Your task to perform on an android device: Clear the cart on amazon. Search for "corsair k70" on amazon, select the first entry, add it to the cart, then select checkout. Image 0: 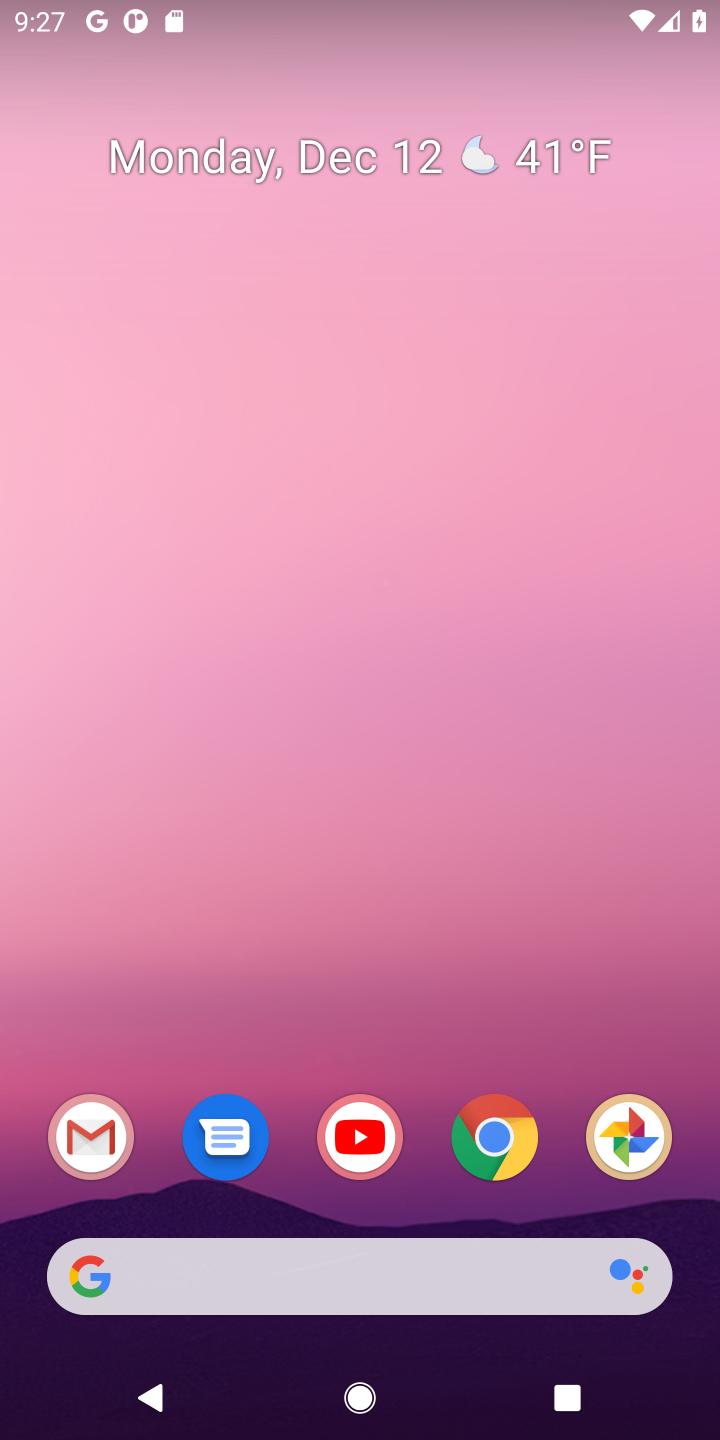
Step 0: click (495, 1143)
Your task to perform on an android device: Clear the cart on amazon. Search for "corsair k70" on amazon, select the first entry, add it to the cart, then select checkout. Image 1: 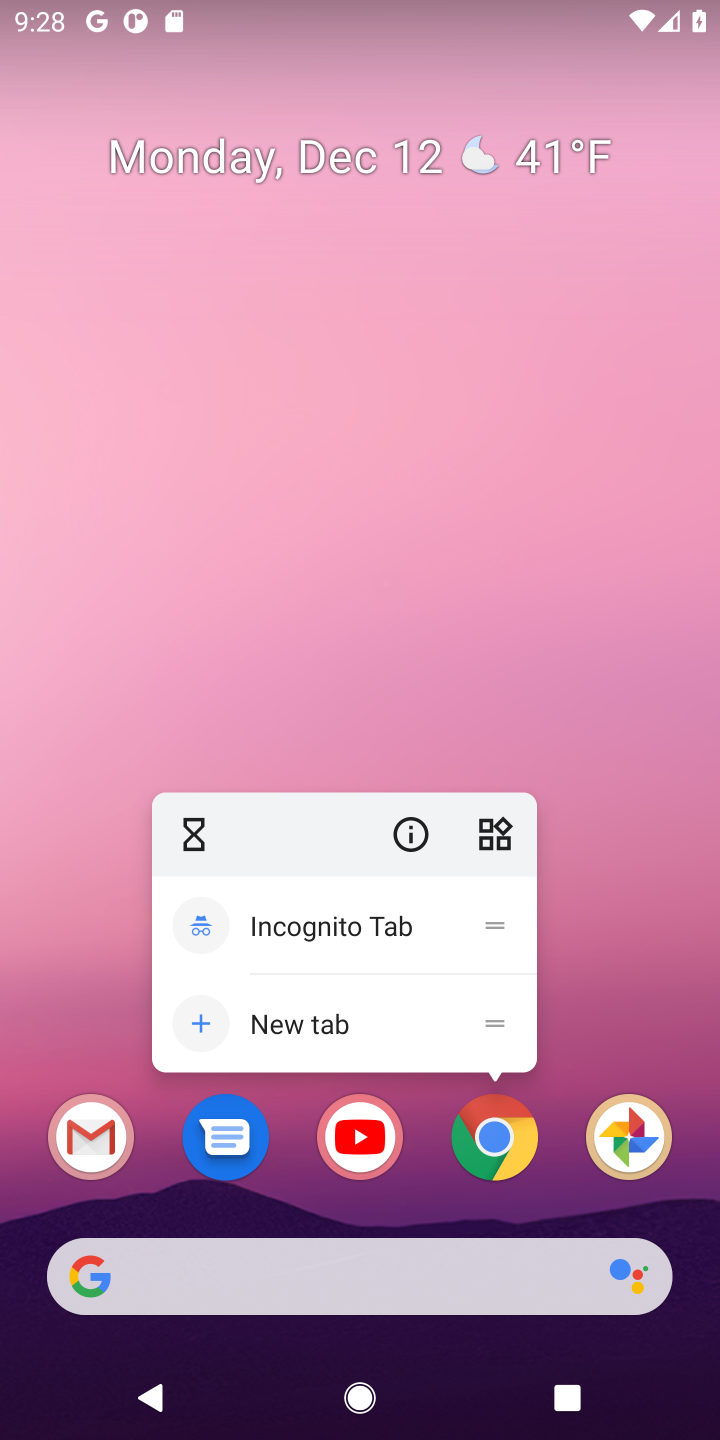
Step 1: click (516, 1114)
Your task to perform on an android device: Clear the cart on amazon. Search for "corsair k70" on amazon, select the first entry, add it to the cart, then select checkout. Image 2: 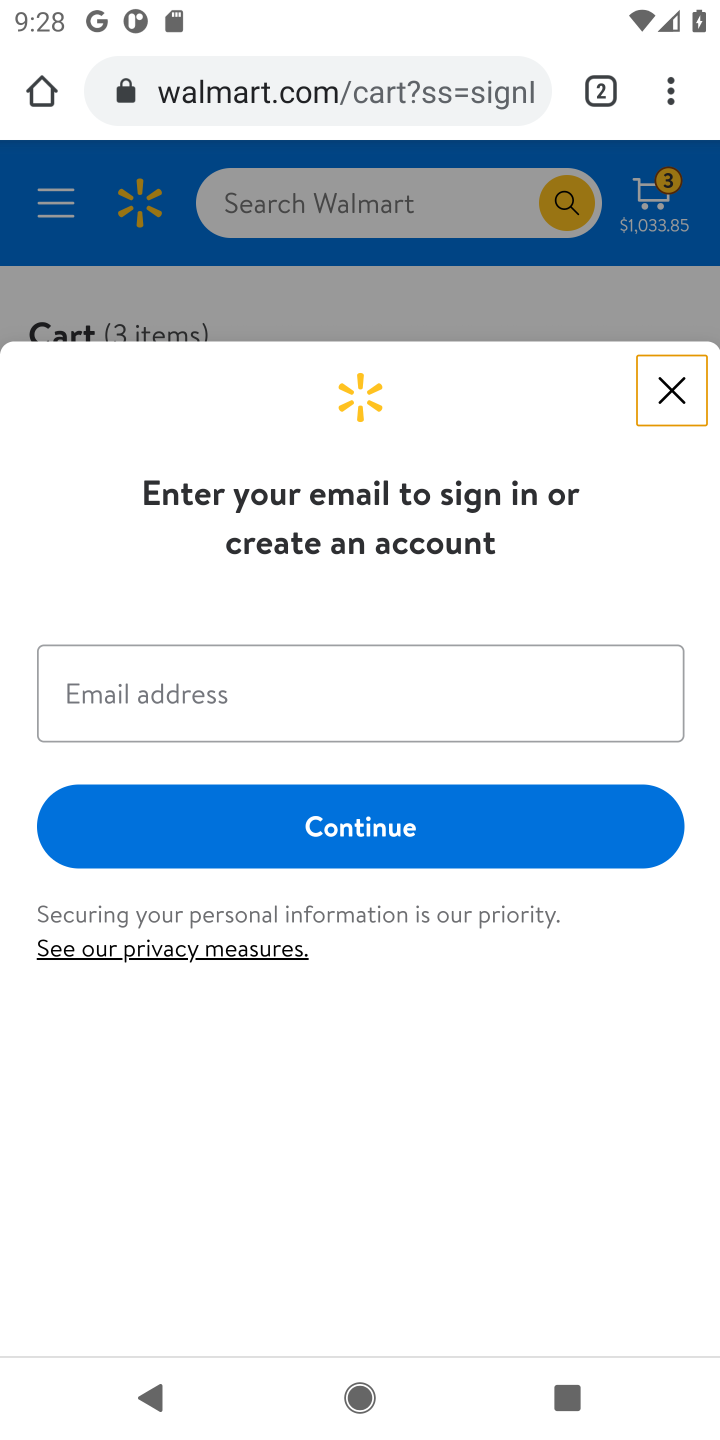
Step 2: click (668, 387)
Your task to perform on an android device: Clear the cart on amazon. Search for "corsair k70" on amazon, select the first entry, add it to the cart, then select checkout. Image 3: 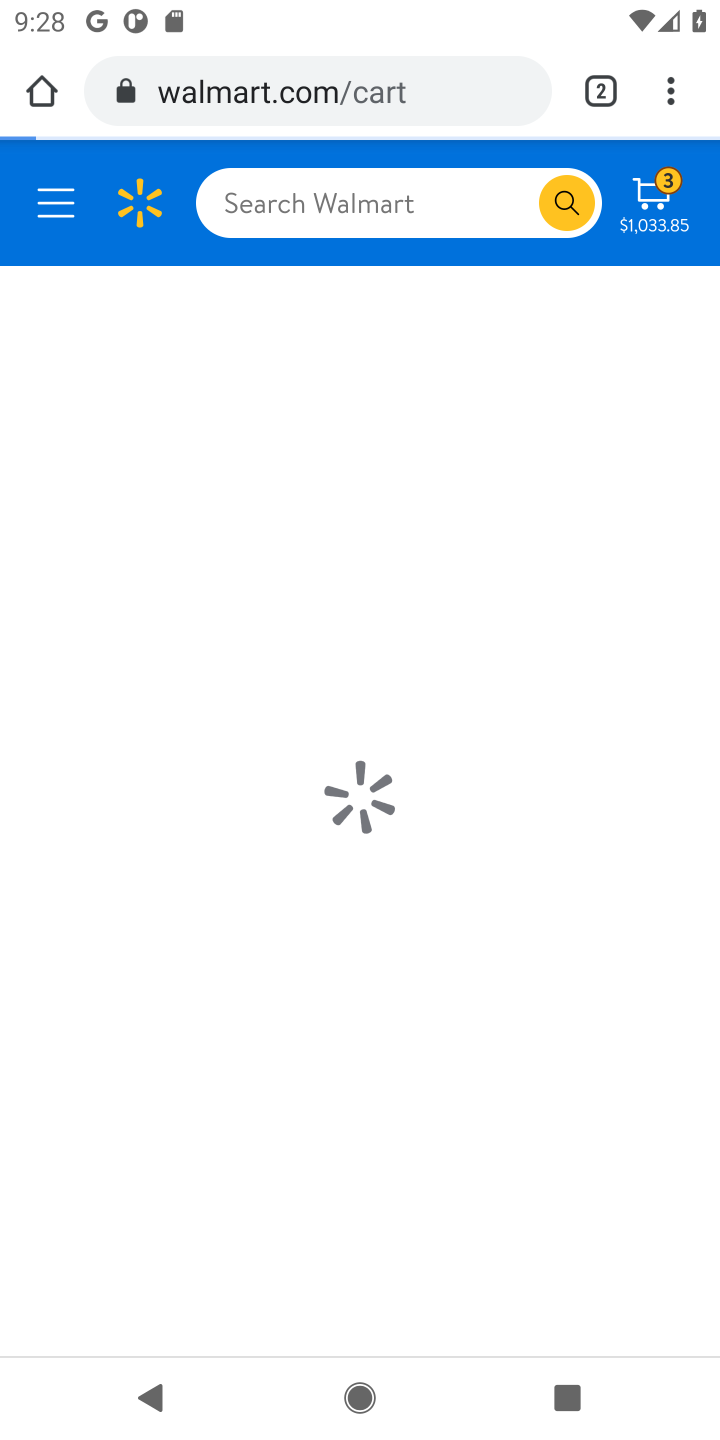
Step 3: click (352, 90)
Your task to perform on an android device: Clear the cart on amazon. Search for "corsair k70" on amazon, select the first entry, add it to the cart, then select checkout. Image 4: 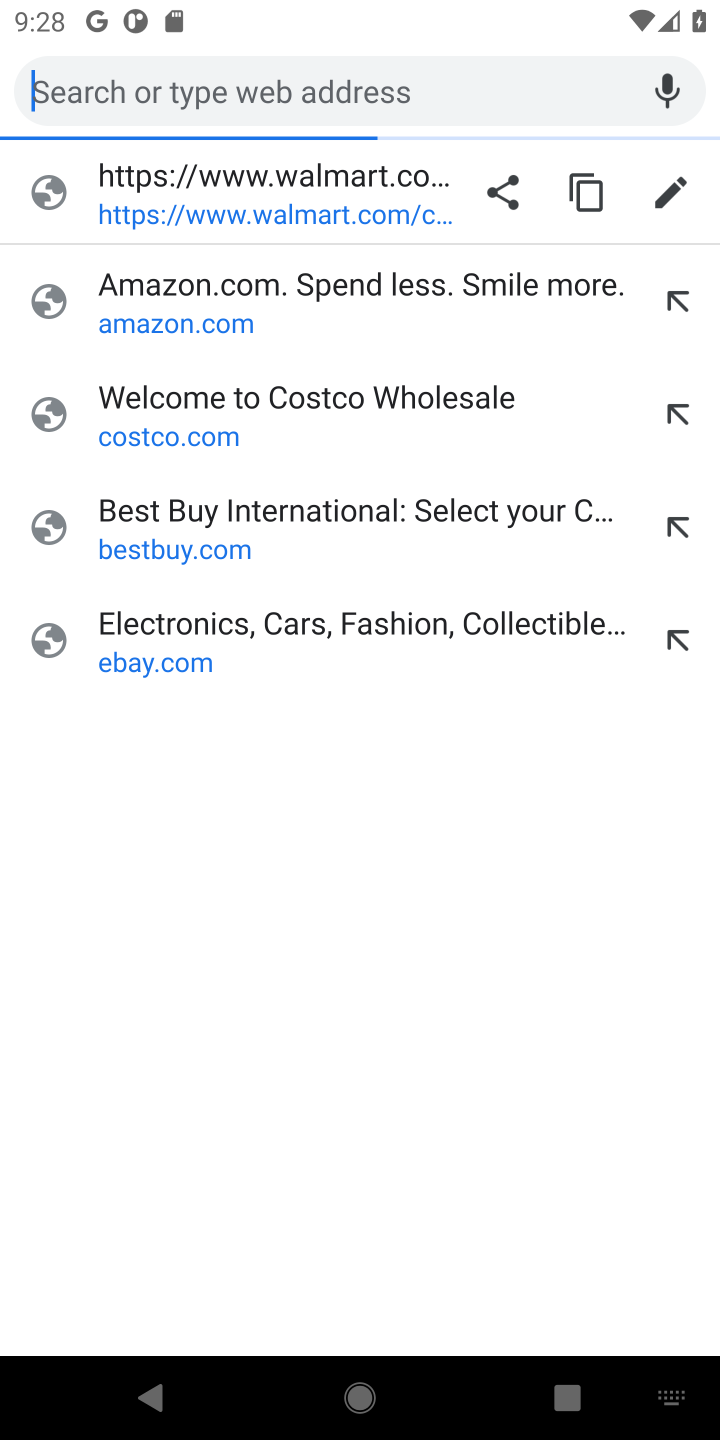
Step 4: click (183, 318)
Your task to perform on an android device: Clear the cart on amazon. Search for "corsair k70" on amazon, select the first entry, add it to the cart, then select checkout. Image 5: 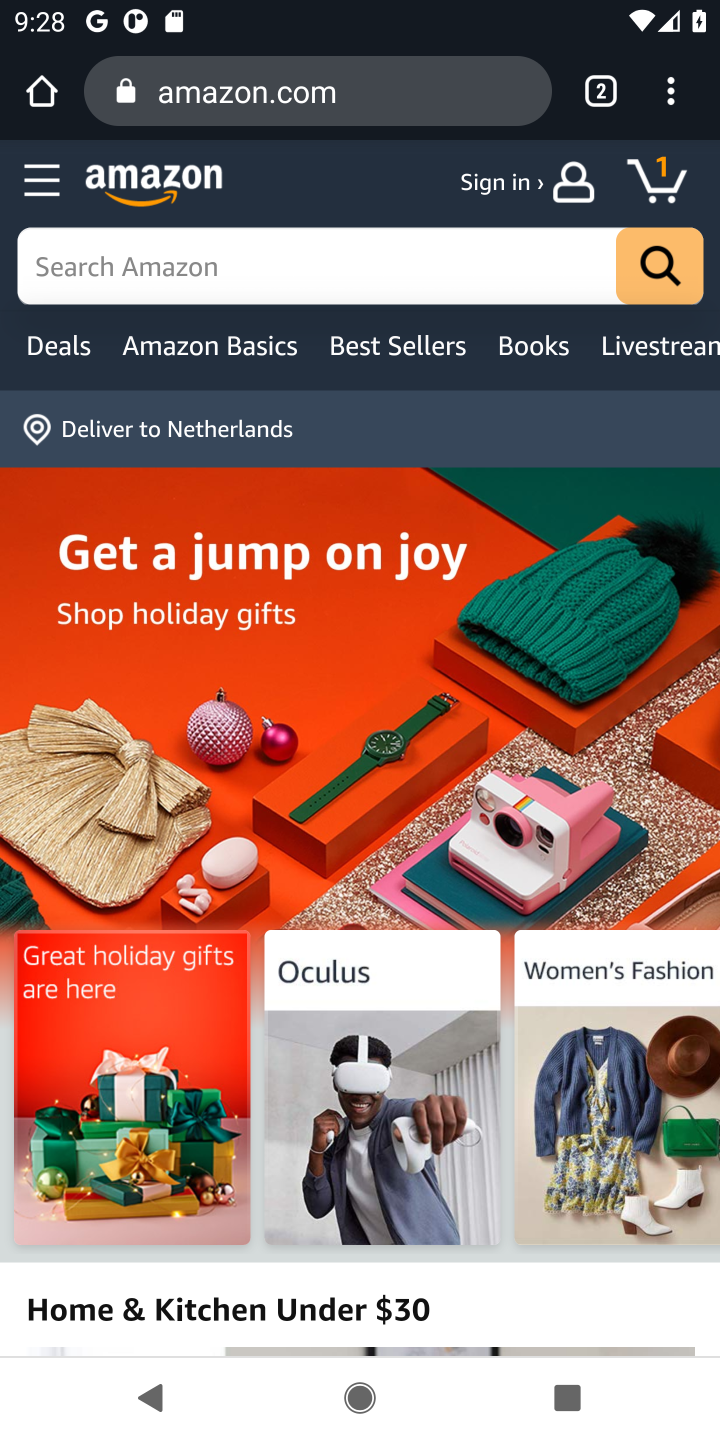
Step 5: click (474, 267)
Your task to perform on an android device: Clear the cart on amazon. Search for "corsair k70" on amazon, select the first entry, add it to the cart, then select checkout. Image 6: 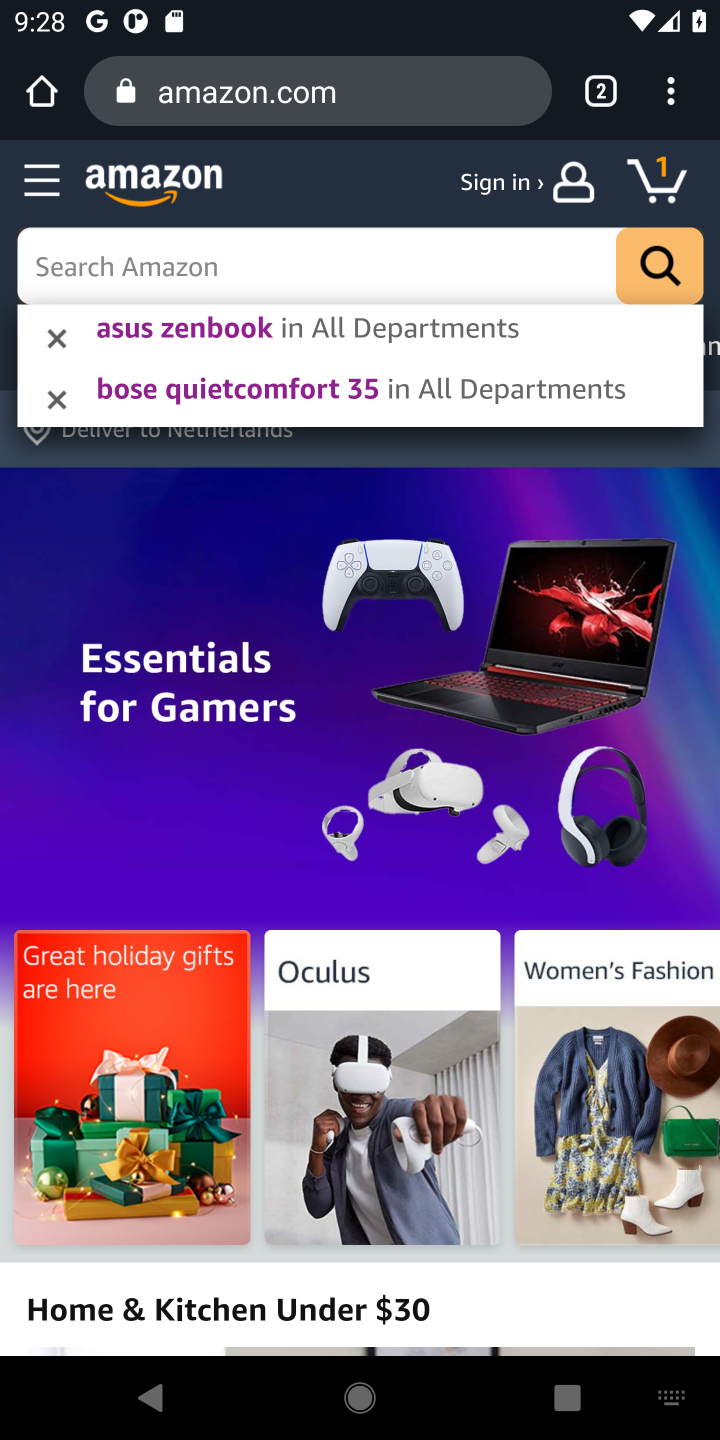
Step 6: click (662, 172)
Your task to perform on an android device: Clear the cart on amazon. Search for "corsair k70" on amazon, select the first entry, add it to the cart, then select checkout. Image 7: 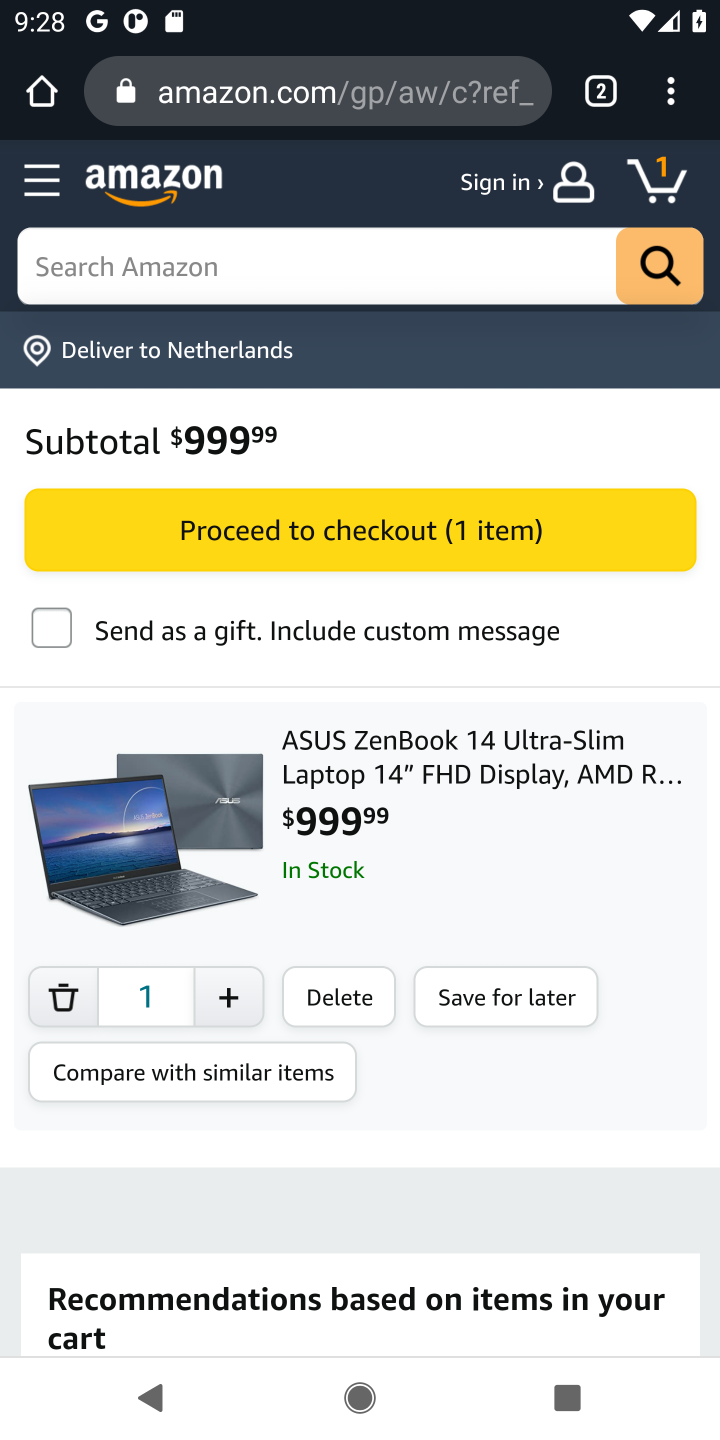
Step 7: click (56, 995)
Your task to perform on an android device: Clear the cart on amazon. Search for "corsair k70" on amazon, select the first entry, add it to the cart, then select checkout. Image 8: 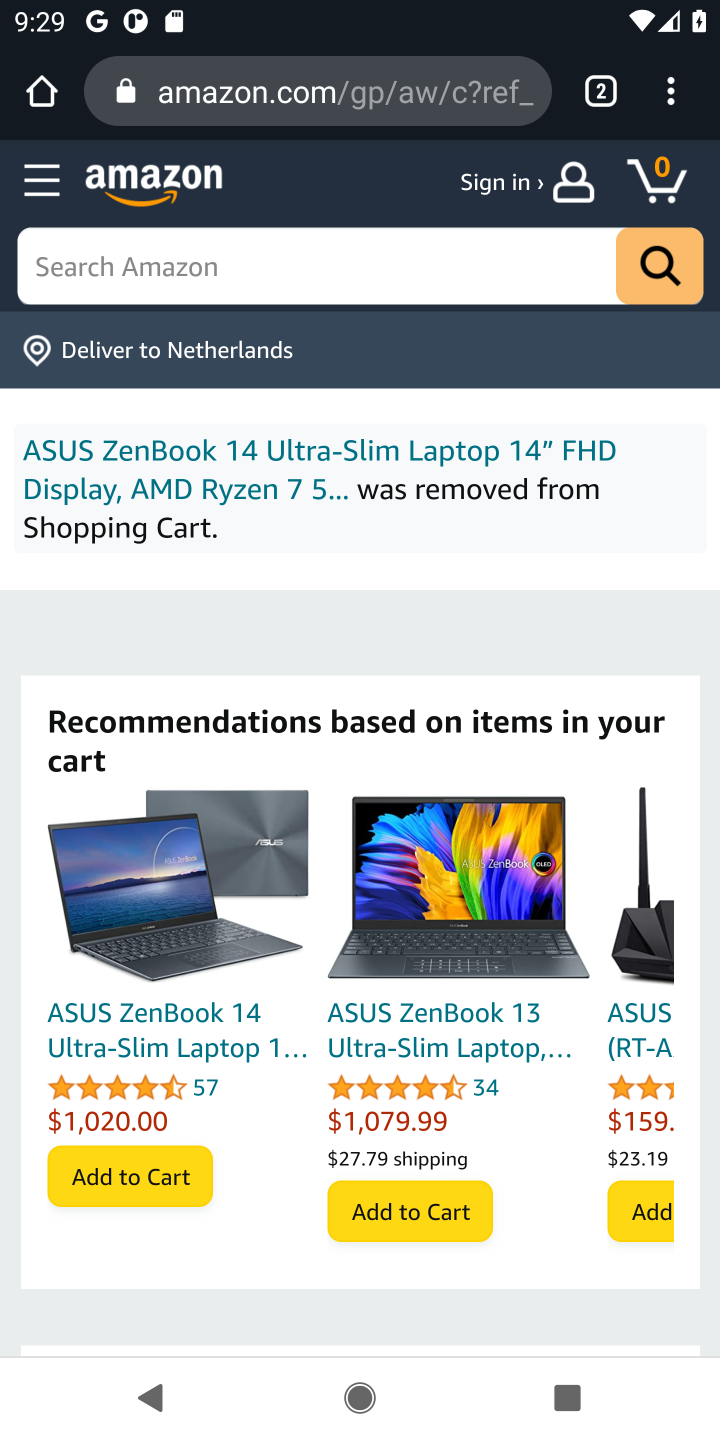
Step 8: click (409, 276)
Your task to perform on an android device: Clear the cart on amazon. Search for "corsair k70" on amazon, select the first entry, add it to the cart, then select checkout. Image 9: 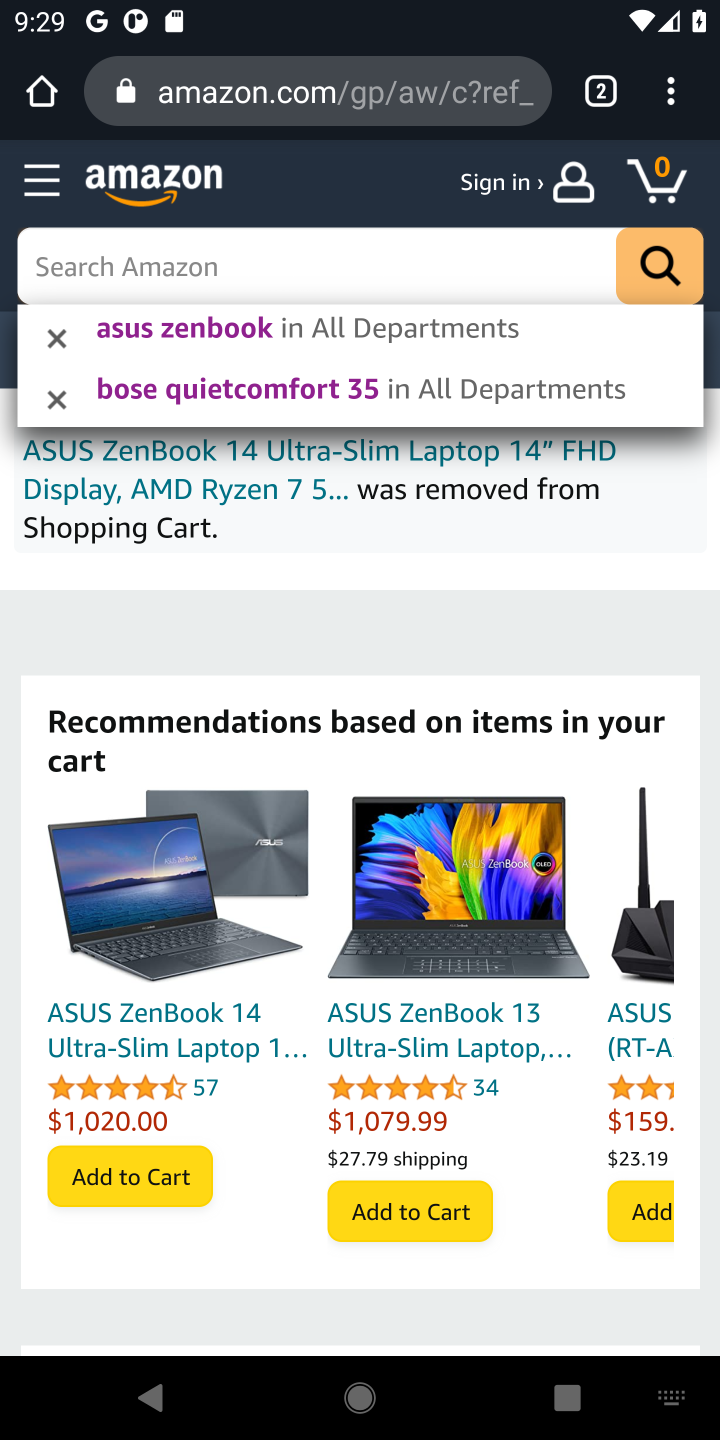
Step 9: type "corsair k70"
Your task to perform on an android device: Clear the cart on amazon. Search for "corsair k70" on amazon, select the first entry, add it to the cart, then select checkout. Image 10: 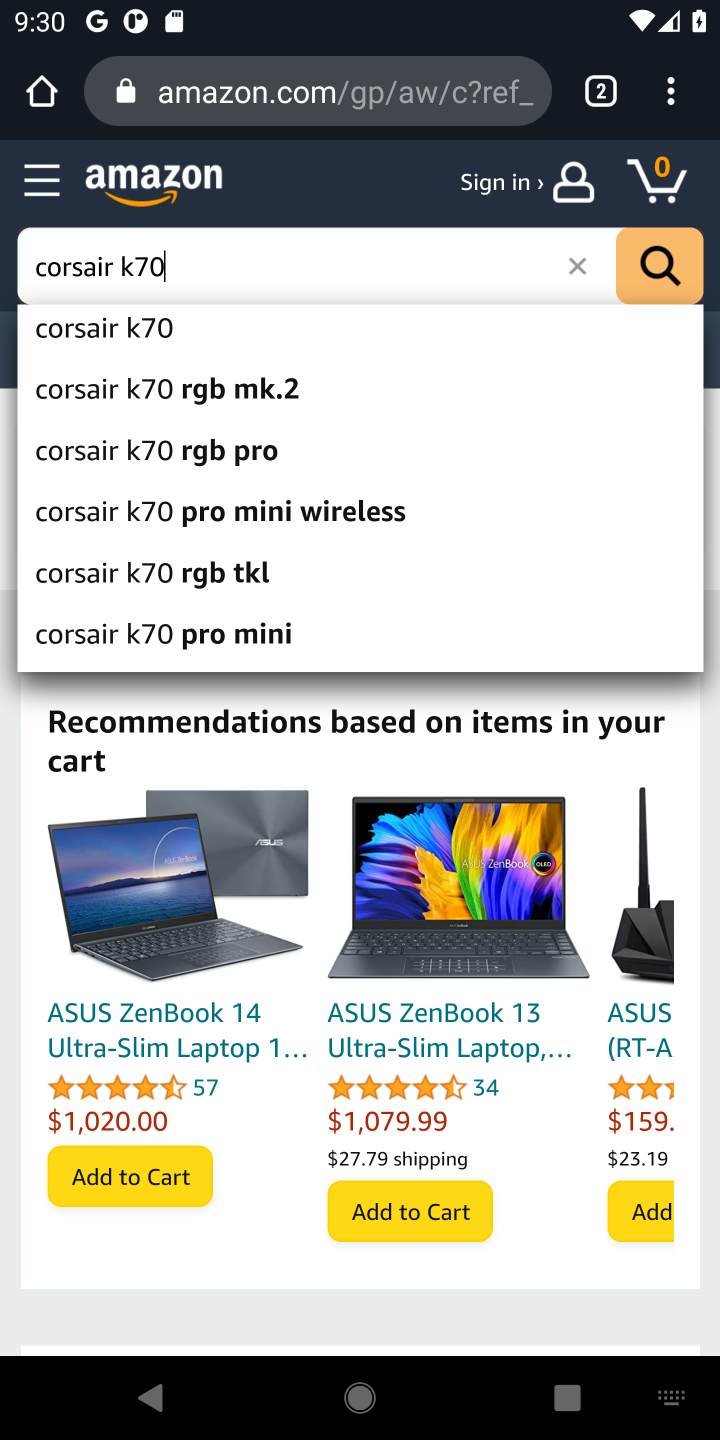
Step 10: click (112, 340)
Your task to perform on an android device: Clear the cart on amazon. Search for "corsair k70" on amazon, select the first entry, add it to the cart, then select checkout. Image 11: 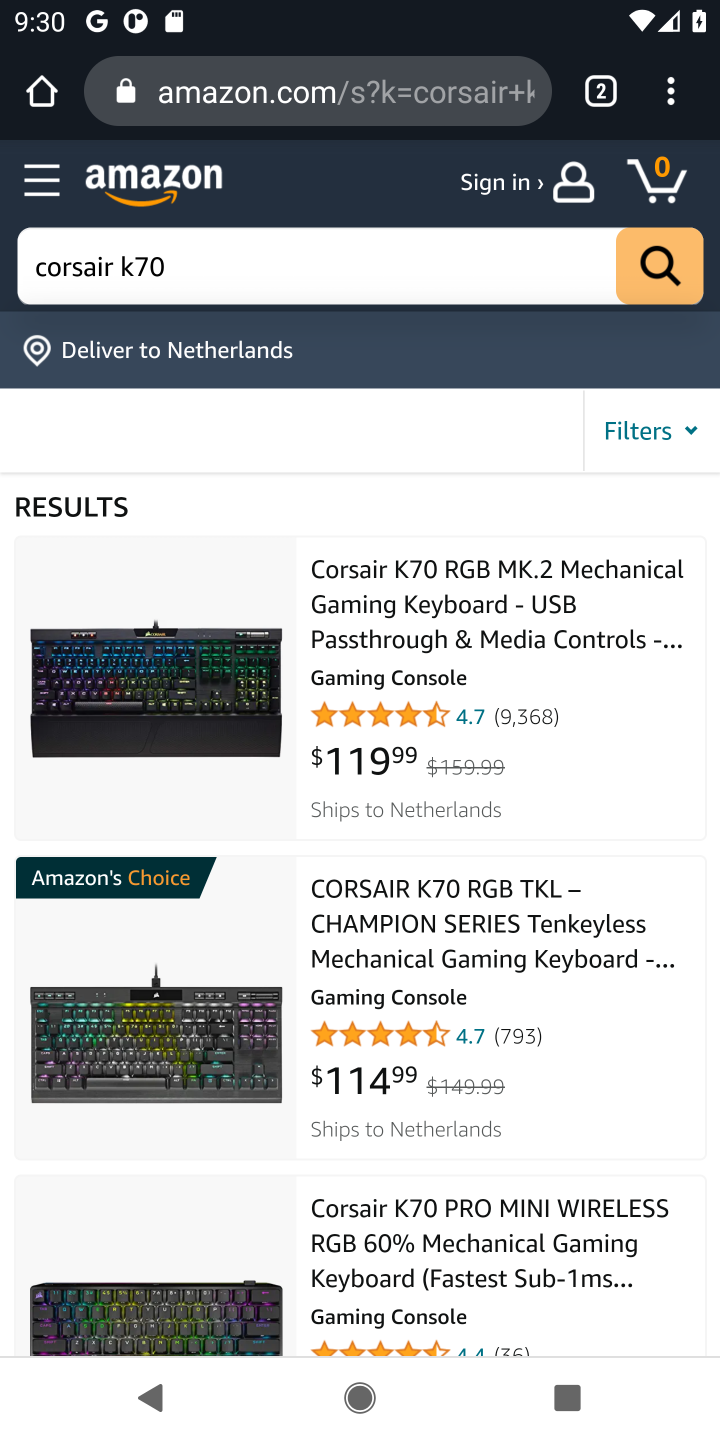
Step 11: click (547, 632)
Your task to perform on an android device: Clear the cart on amazon. Search for "corsair k70" on amazon, select the first entry, add it to the cart, then select checkout. Image 12: 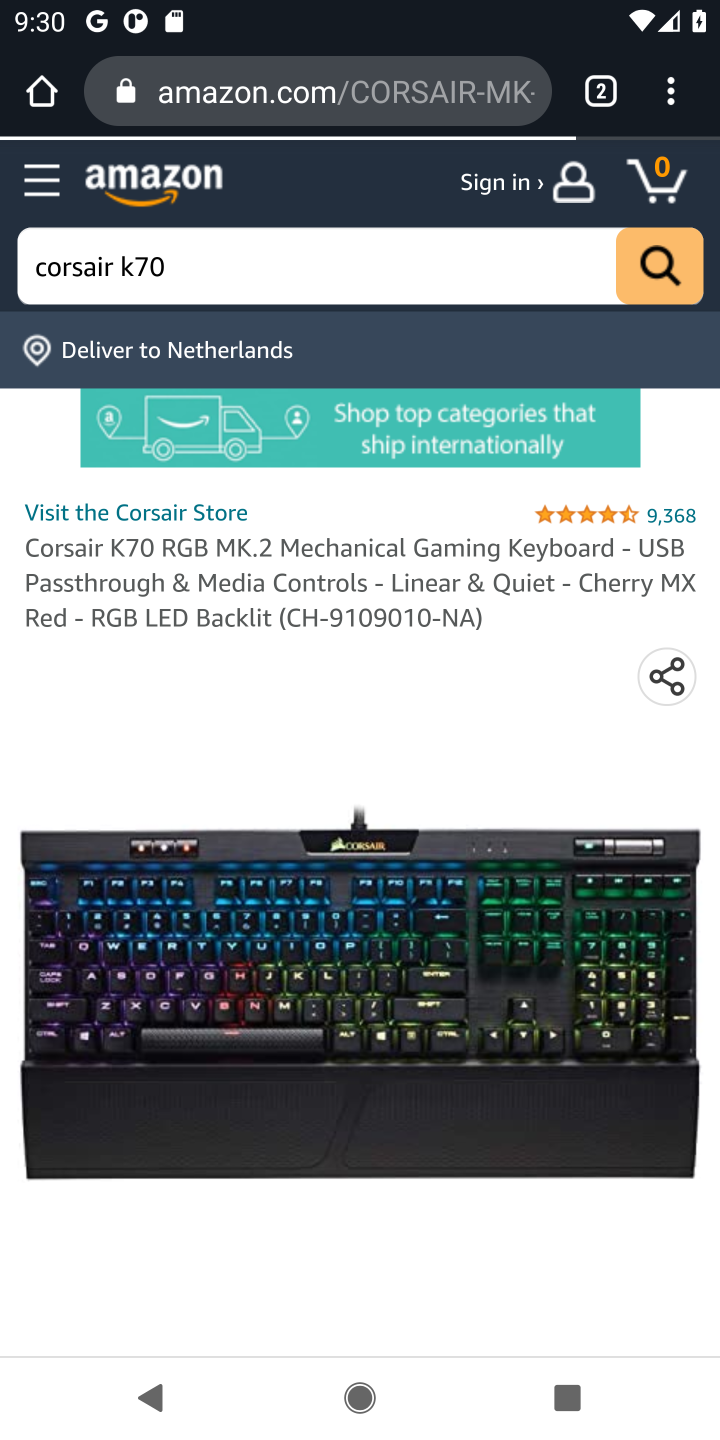
Step 12: drag from (521, 1210) to (503, 319)
Your task to perform on an android device: Clear the cart on amazon. Search for "corsair k70" on amazon, select the first entry, add it to the cart, then select checkout. Image 13: 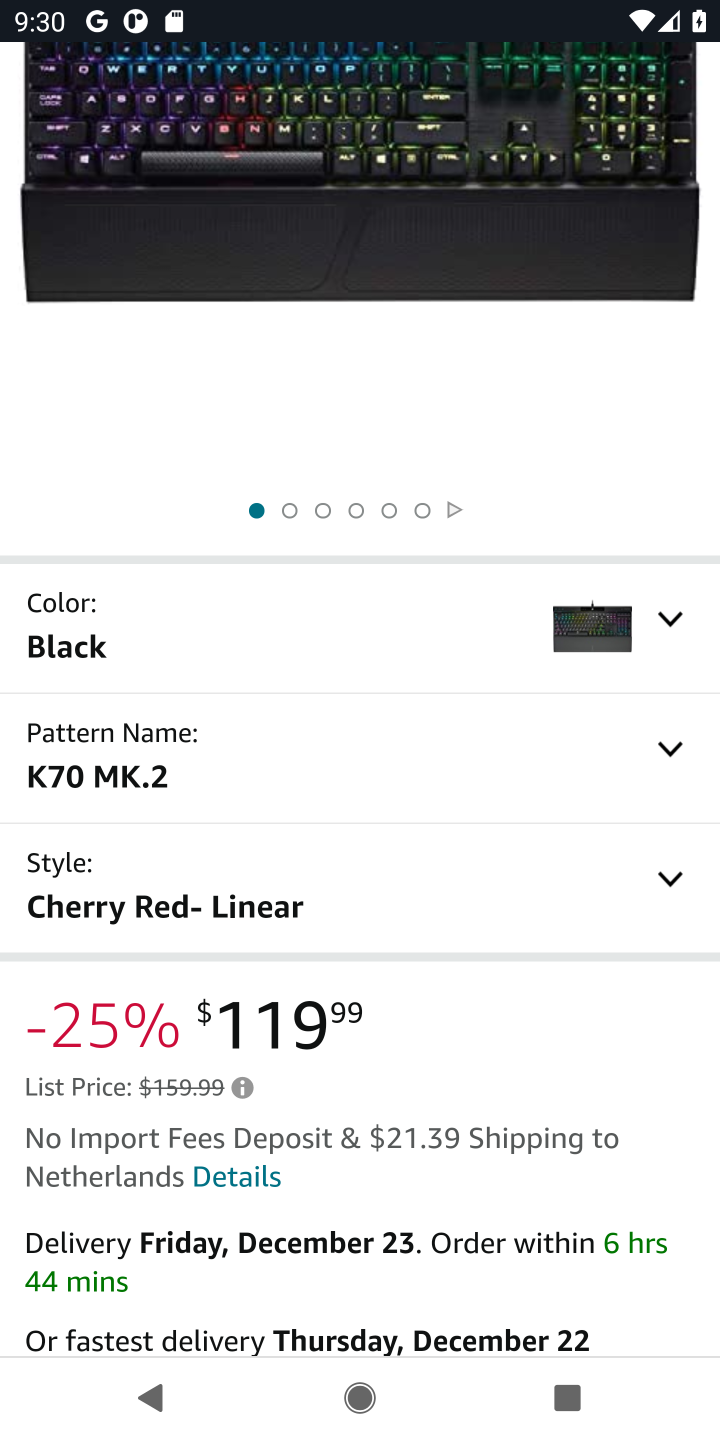
Step 13: drag from (529, 1197) to (477, 293)
Your task to perform on an android device: Clear the cart on amazon. Search for "corsair k70" on amazon, select the first entry, add it to the cart, then select checkout. Image 14: 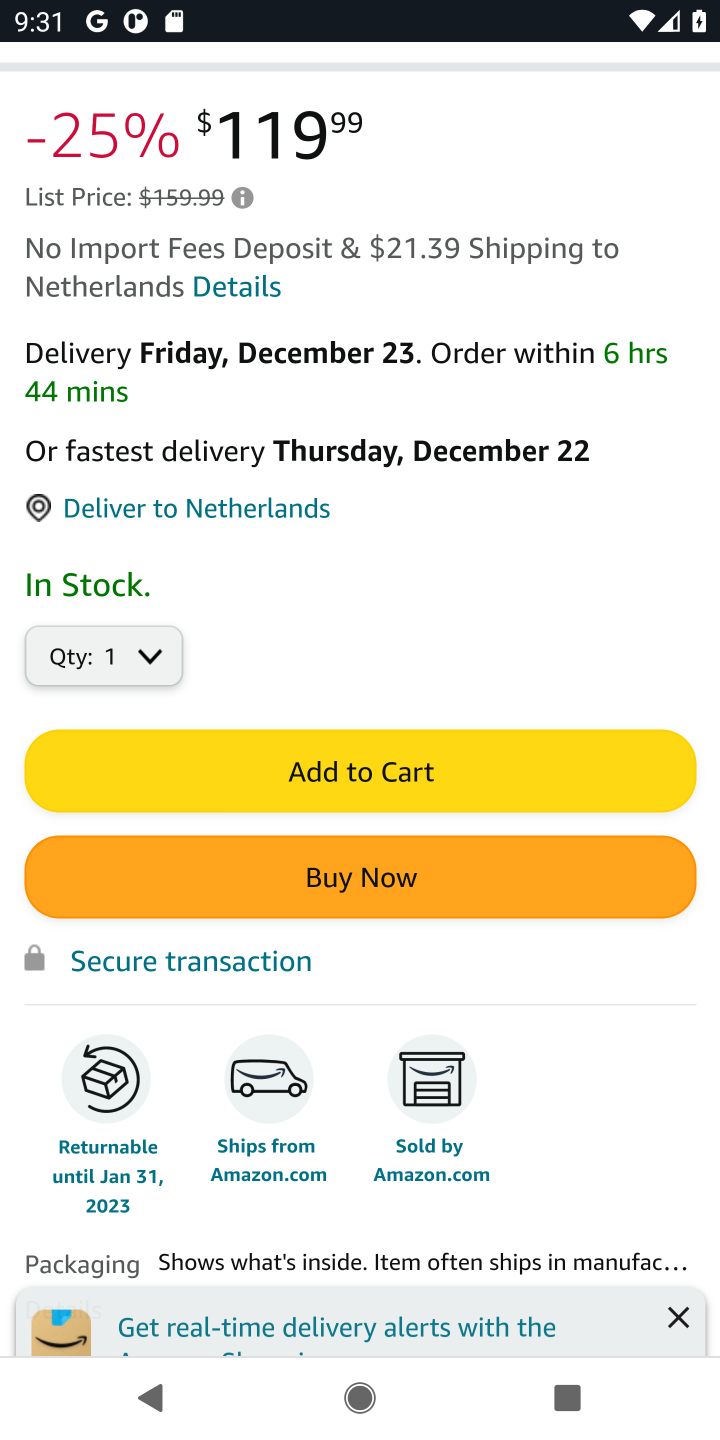
Step 14: click (356, 771)
Your task to perform on an android device: Clear the cart on amazon. Search for "corsair k70" on amazon, select the first entry, add it to the cart, then select checkout. Image 15: 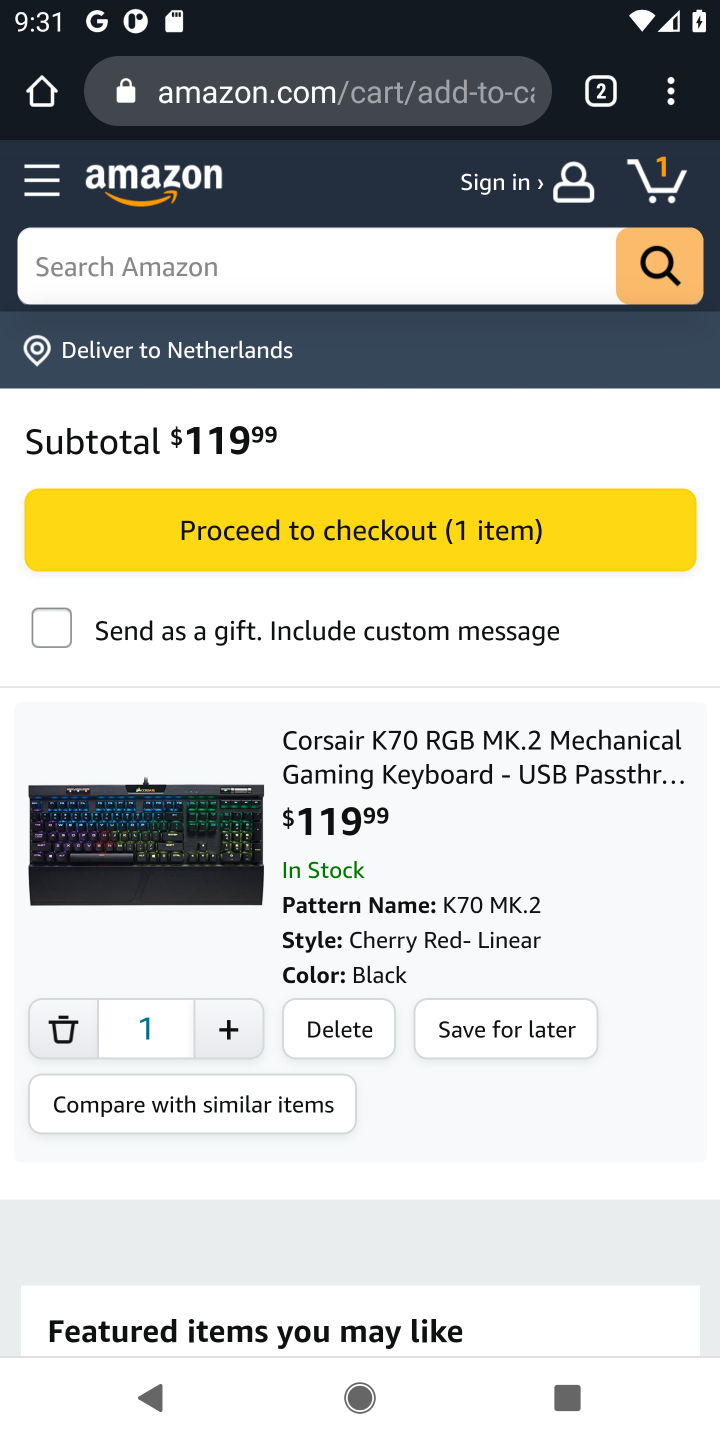
Step 15: click (352, 535)
Your task to perform on an android device: Clear the cart on amazon. Search for "corsair k70" on amazon, select the first entry, add it to the cart, then select checkout. Image 16: 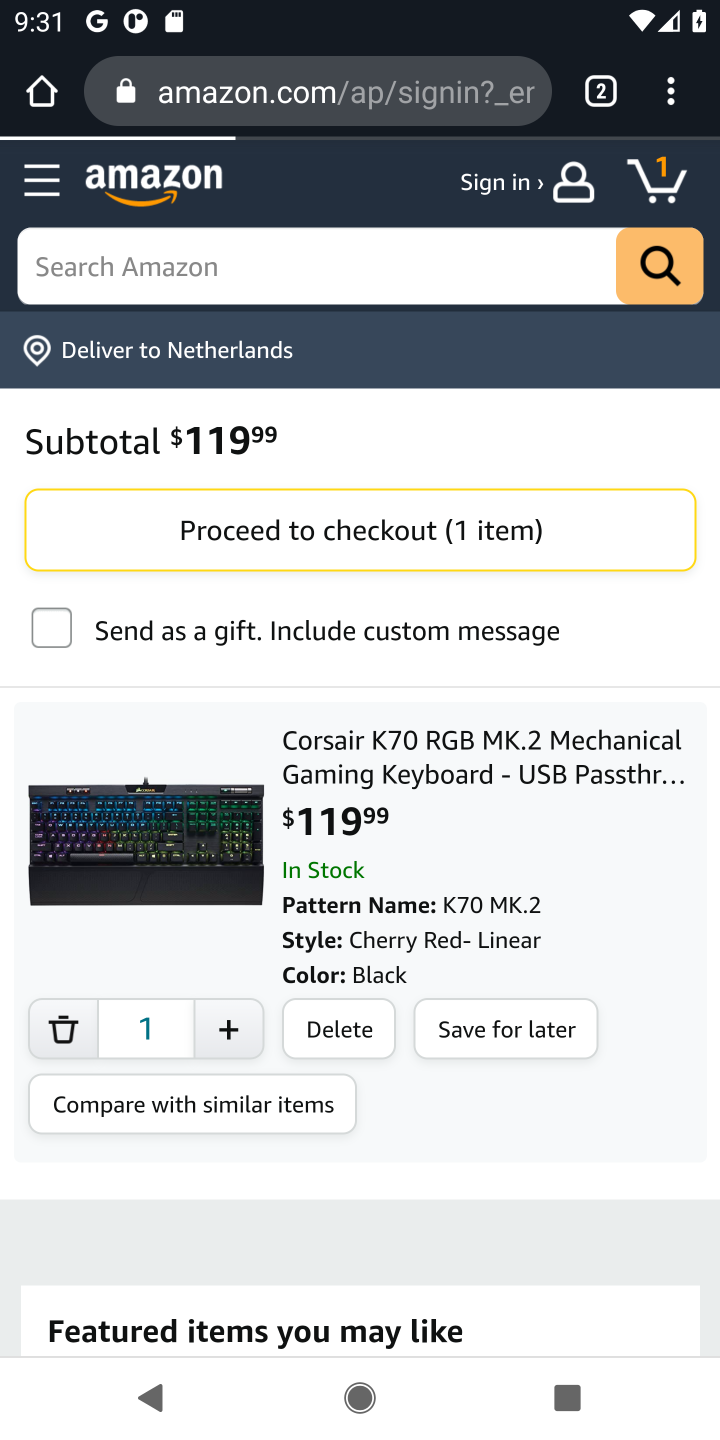
Step 16: task complete